Your task to perform on an android device: Show me the alarms in the clock app Image 0: 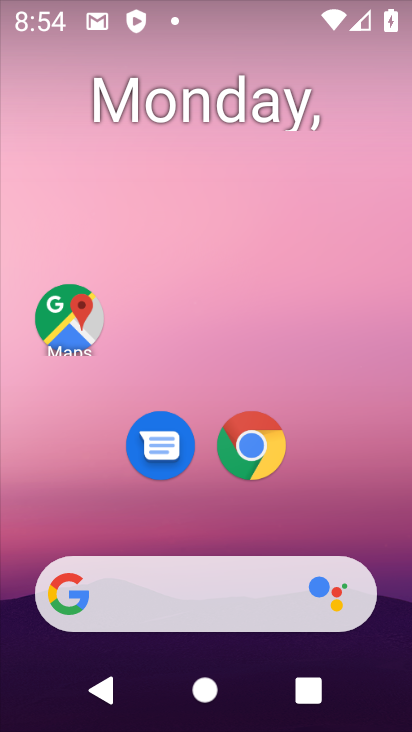
Step 0: drag from (219, 455) to (248, 6)
Your task to perform on an android device: Show me the alarms in the clock app Image 1: 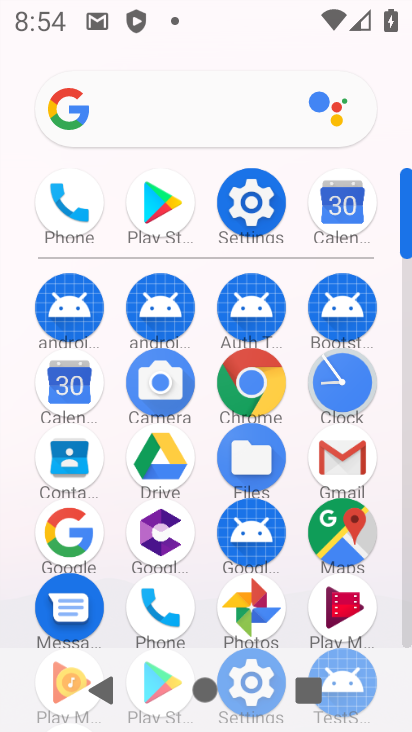
Step 1: click (333, 380)
Your task to perform on an android device: Show me the alarms in the clock app Image 2: 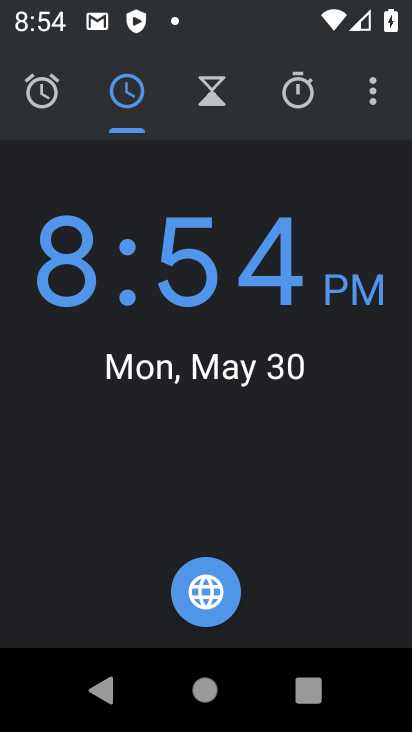
Step 2: click (50, 80)
Your task to perform on an android device: Show me the alarms in the clock app Image 3: 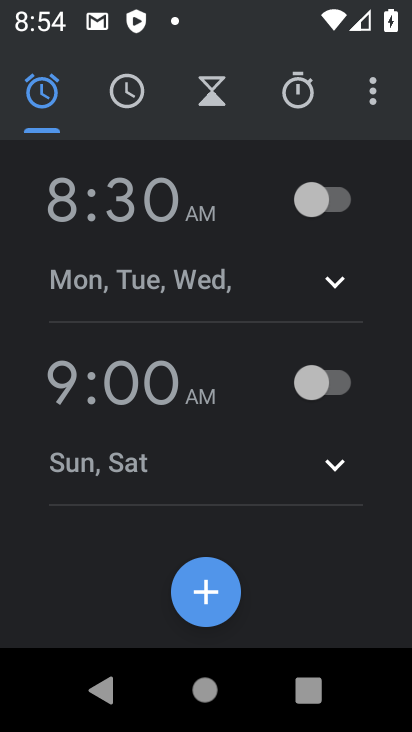
Step 3: task complete